Your task to perform on an android device: read, delete, or share a saved page in the chrome app Image 0: 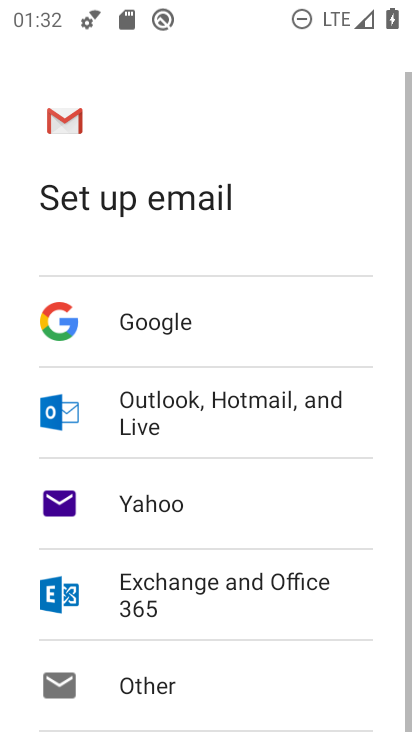
Step 0: press home button
Your task to perform on an android device: read, delete, or share a saved page in the chrome app Image 1: 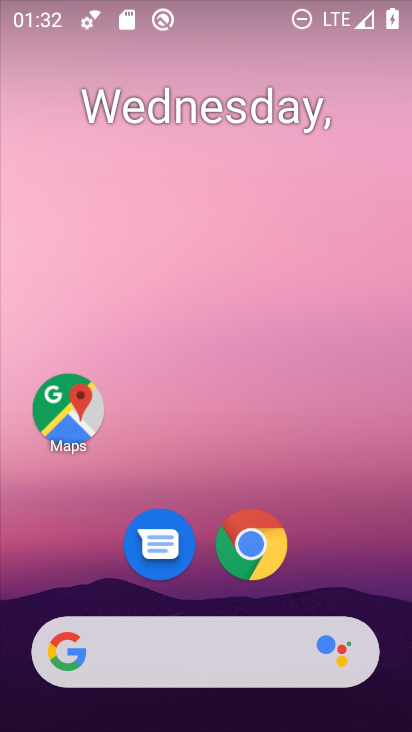
Step 1: click (240, 543)
Your task to perform on an android device: read, delete, or share a saved page in the chrome app Image 2: 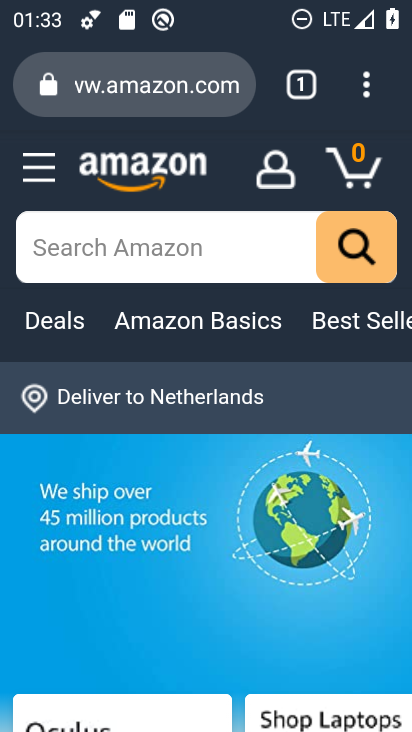
Step 2: click (365, 92)
Your task to perform on an android device: read, delete, or share a saved page in the chrome app Image 3: 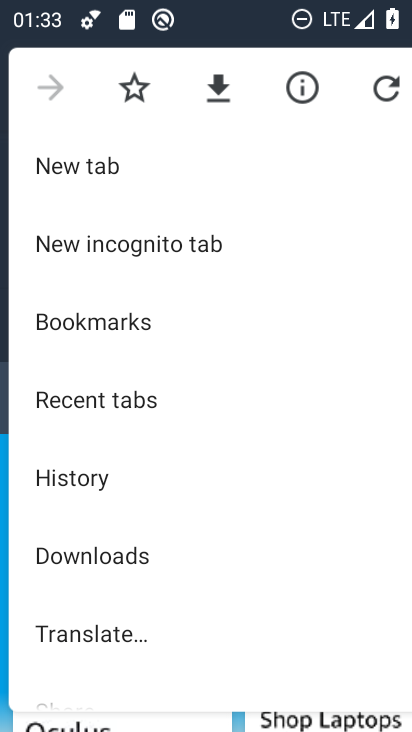
Step 3: drag from (143, 625) to (162, 357)
Your task to perform on an android device: read, delete, or share a saved page in the chrome app Image 4: 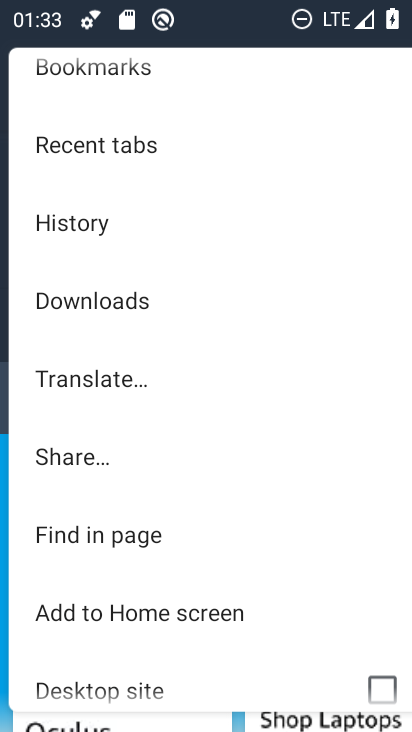
Step 4: drag from (132, 673) to (135, 399)
Your task to perform on an android device: read, delete, or share a saved page in the chrome app Image 5: 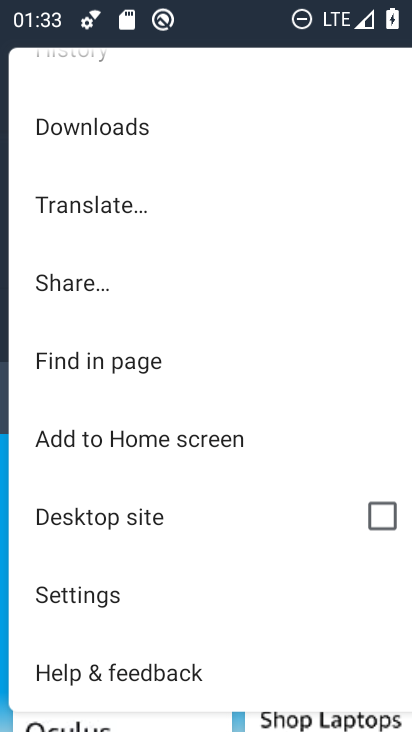
Step 5: click (110, 110)
Your task to perform on an android device: read, delete, or share a saved page in the chrome app Image 6: 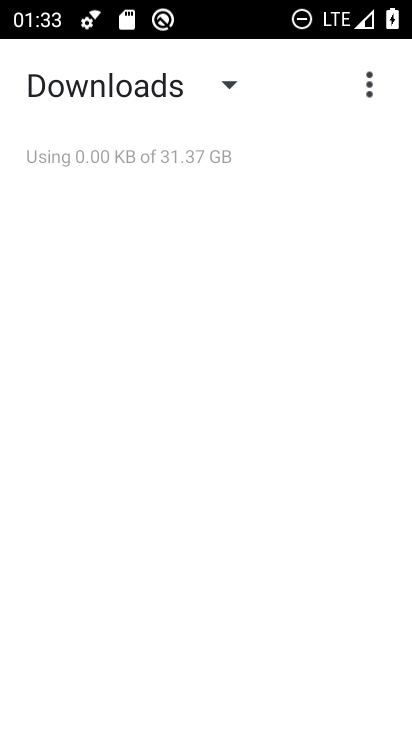
Step 6: click (208, 78)
Your task to perform on an android device: read, delete, or share a saved page in the chrome app Image 7: 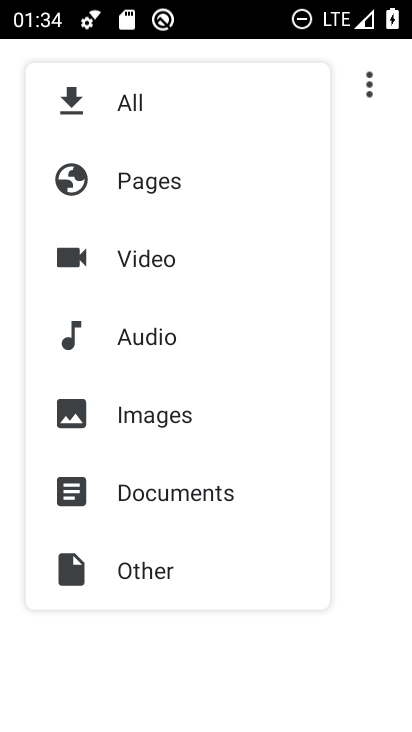
Step 7: click (143, 189)
Your task to perform on an android device: read, delete, or share a saved page in the chrome app Image 8: 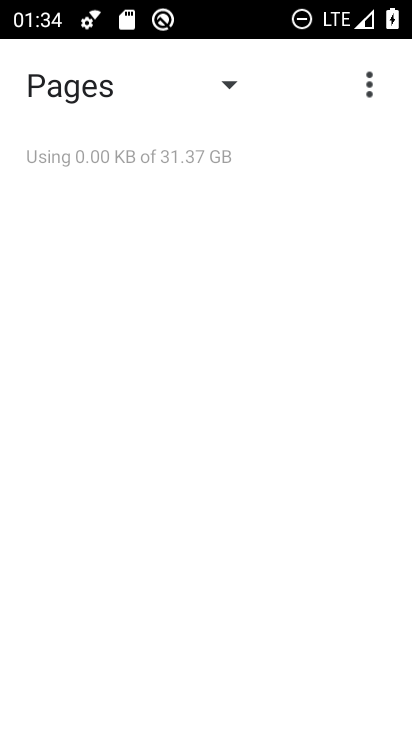
Step 8: task complete